Your task to perform on an android device: toggle priority inbox in the gmail app Image 0: 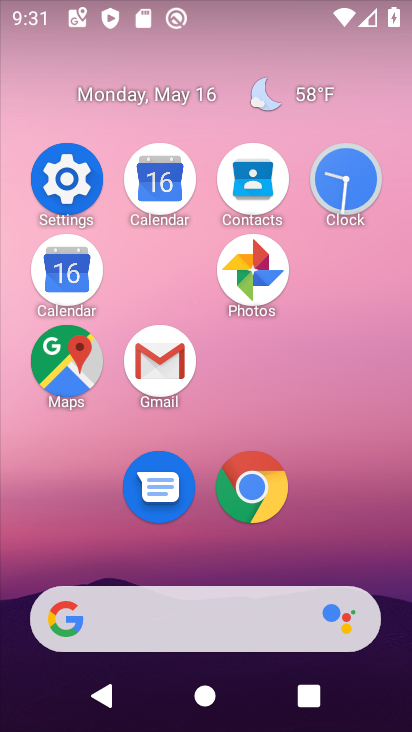
Step 0: click (162, 353)
Your task to perform on an android device: toggle priority inbox in the gmail app Image 1: 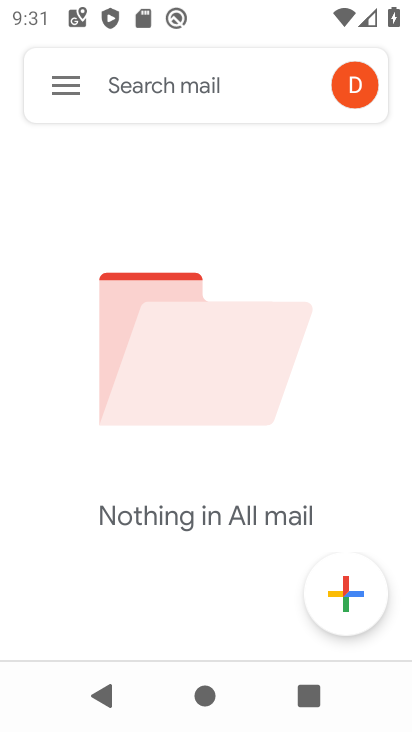
Step 1: click (67, 81)
Your task to perform on an android device: toggle priority inbox in the gmail app Image 2: 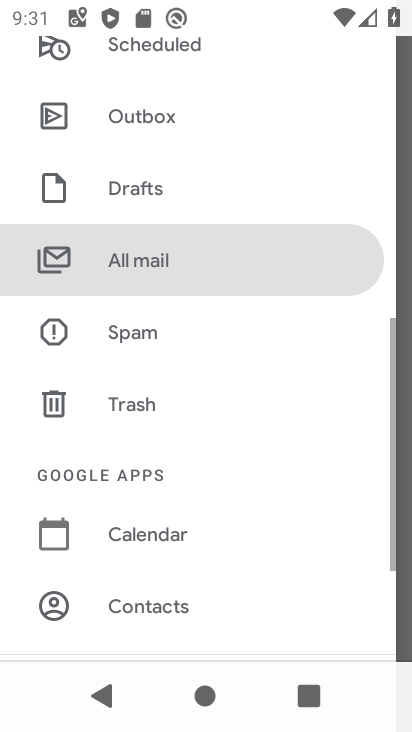
Step 2: drag from (193, 537) to (233, 139)
Your task to perform on an android device: toggle priority inbox in the gmail app Image 3: 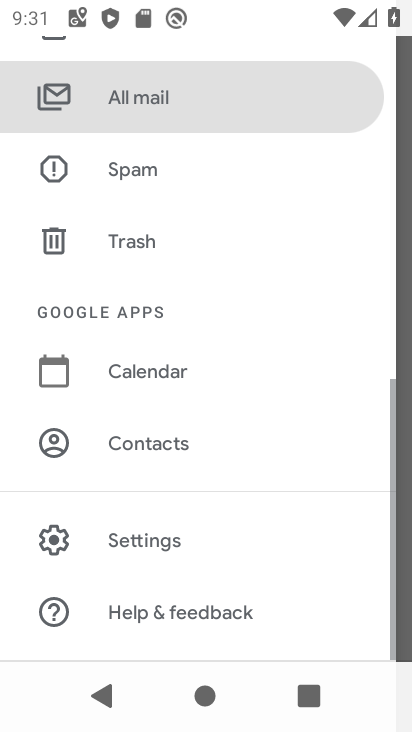
Step 3: click (172, 521)
Your task to perform on an android device: toggle priority inbox in the gmail app Image 4: 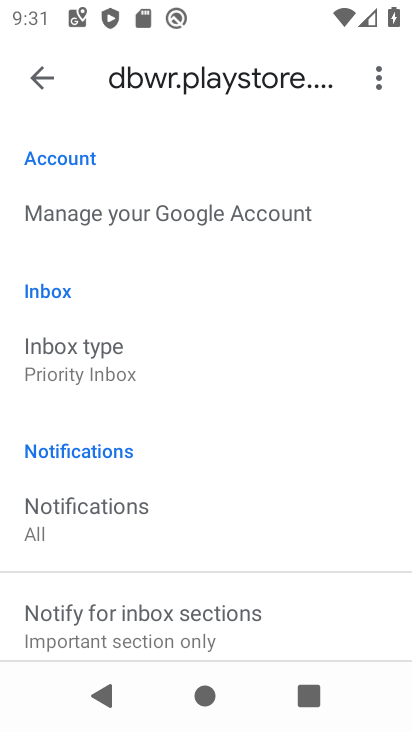
Step 4: click (109, 347)
Your task to perform on an android device: toggle priority inbox in the gmail app Image 5: 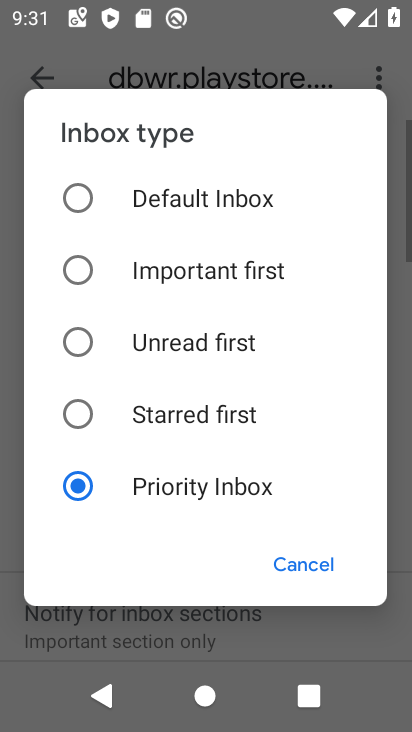
Step 5: click (169, 213)
Your task to perform on an android device: toggle priority inbox in the gmail app Image 6: 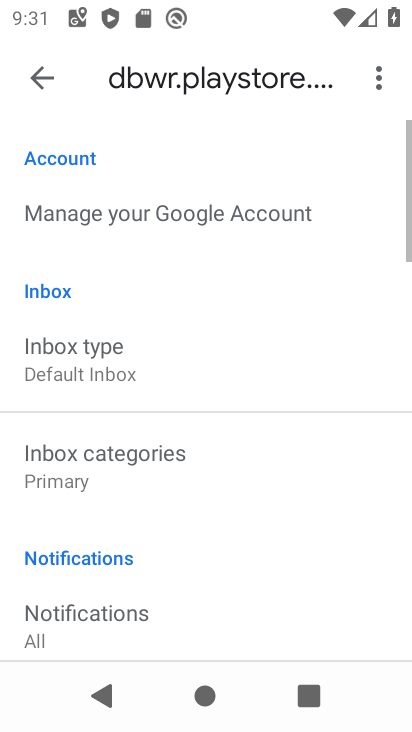
Step 6: task complete